Your task to perform on an android device: Open the map Image 0: 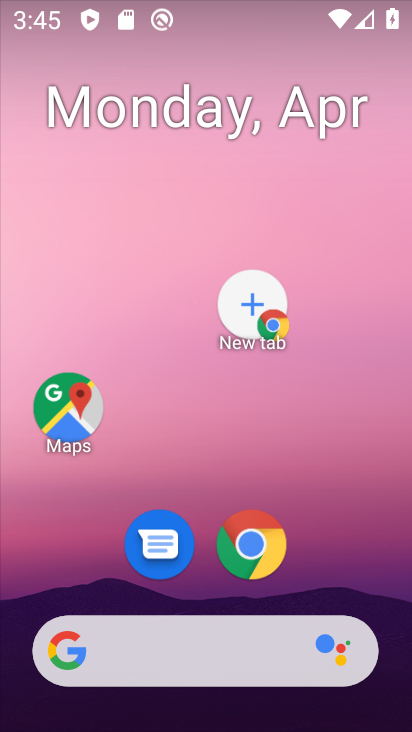
Step 0: drag from (305, 496) to (316, 64)
Your task to perform on an android device: Open the map Image 1: 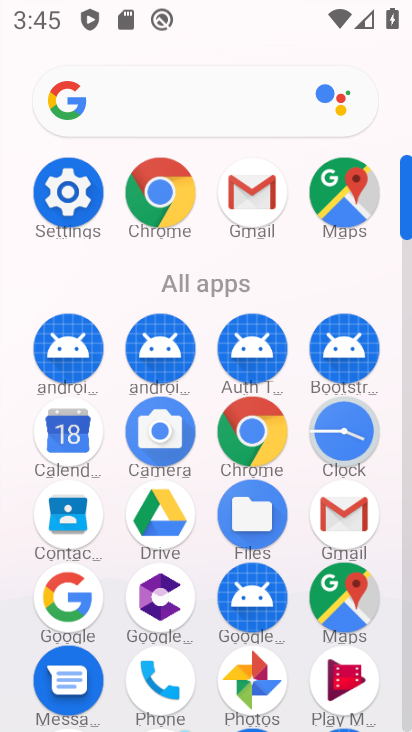
Step 1: drag from (311, 582) to (284, 279)
Your task to perform on an android device: Open the map Image 2: 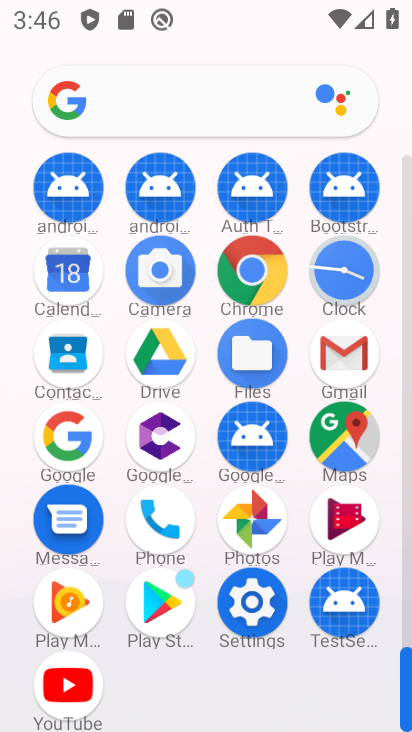
Step 2: click (344, 448)
Your task to perform on an android device: Open the map Image 3: 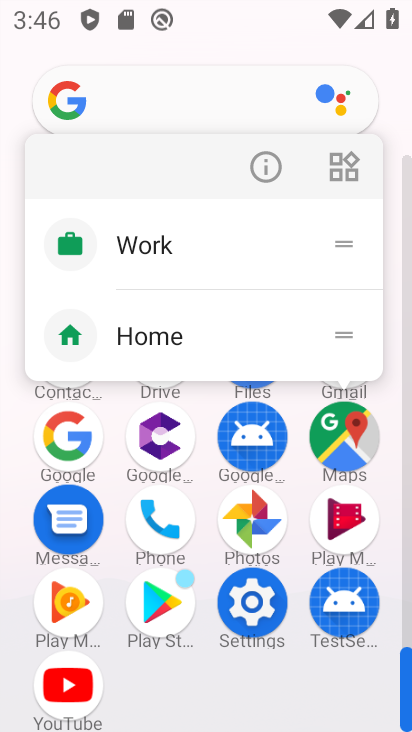
Step 3: click (344, 448)
Your task to perform on an android device: Open the map Image 4: 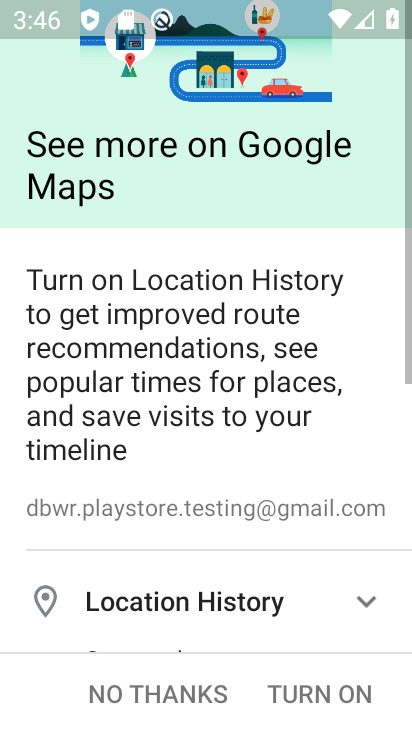
Step 4: click (204, 694)
Your task to perform on an android device: Open the map Image 5: 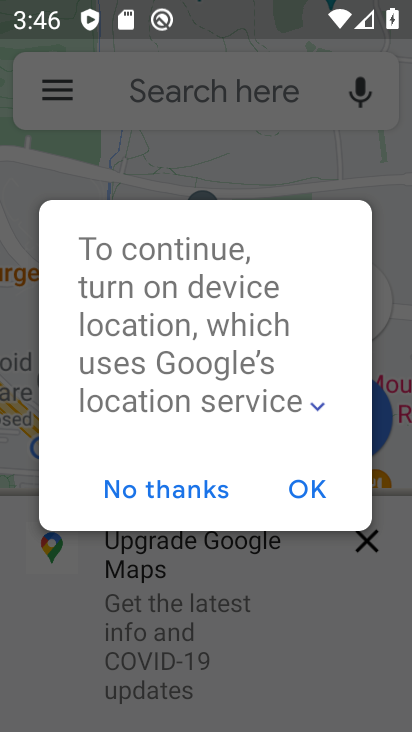
Step 5: click (169, 489)
Your task to perform on an android device: Open the map Image 6: 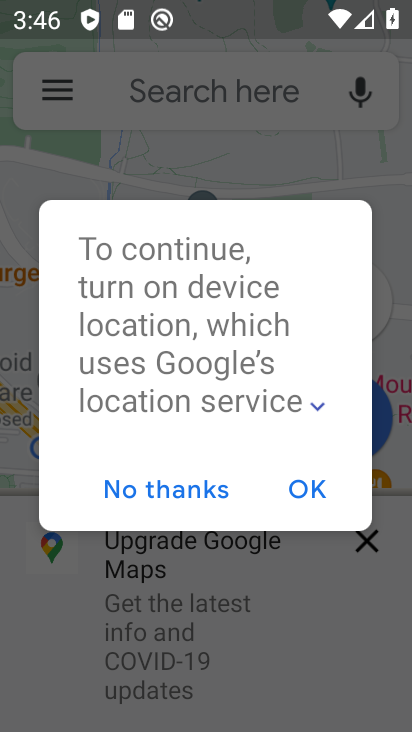
Step 6: click (192, 485)
Your task to perform on an android device: Open the map Image 7: 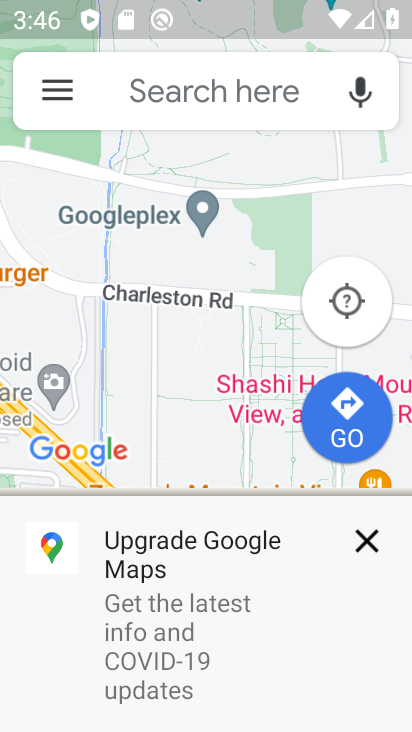
Step 7: click (373, 543)
Your task to perform on an android device: Open the map Image 8: 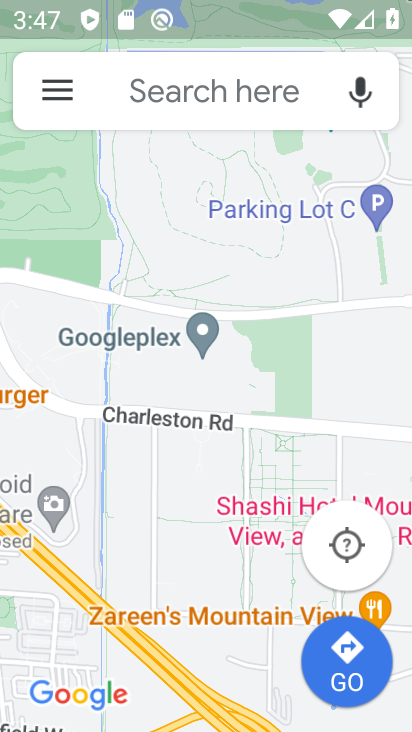
Step 8: task complete